Your task to perform on an android device: Go to eBay Image 0: 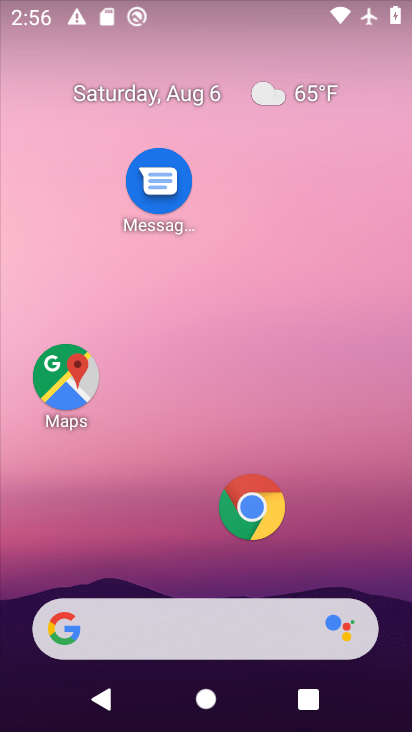
Step 0: click (247, 514)
Your task to perform on an android device: Go to eBay Image 1: 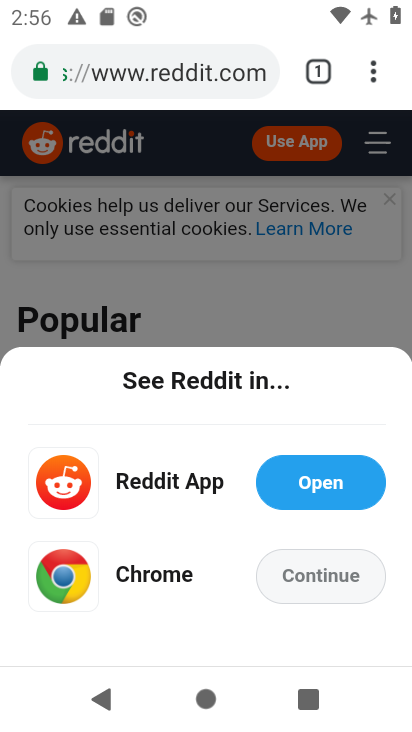
Step 1: click (316, 579)
Your task to perform on an android device: Go to eBay Image 2: 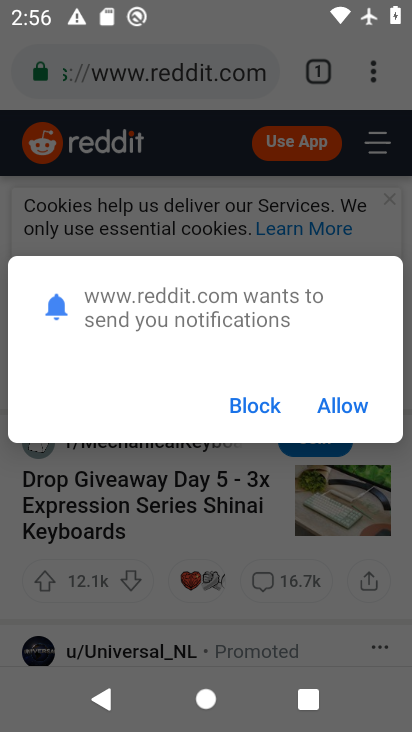
Step 2: click (339, 413)
Your task to perform on an android device: Go to eBay Image 3: 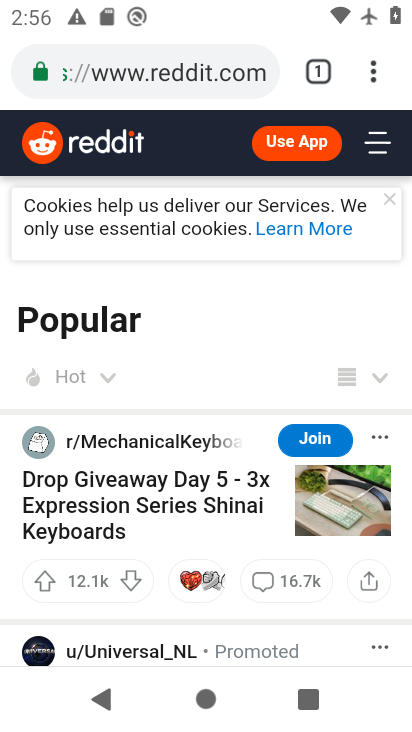
Step 3: click (134, 66)
Your task to perform on an android device: Go to eBay Image 4: 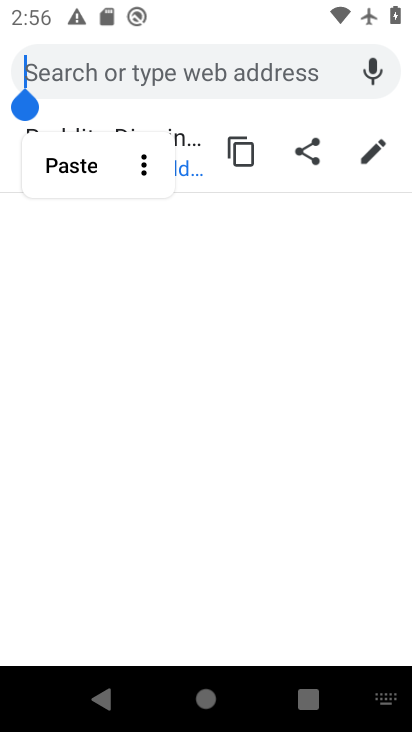
Step 4: type "eBay"
Your task to perform on an android device: Go to eBay Image 5: 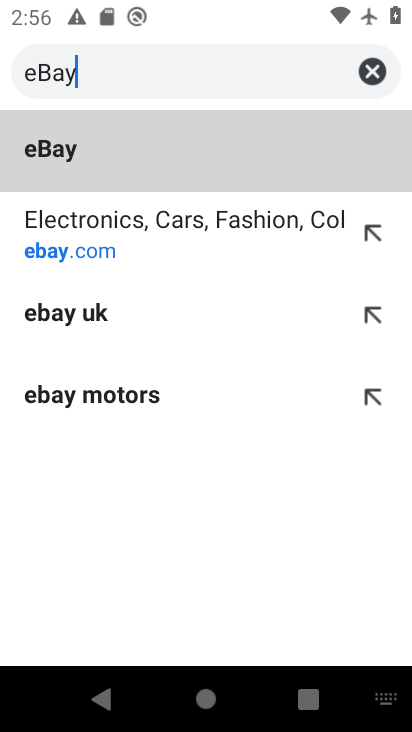
Step 5: click (74, 244)
Your task to perform on an android device: Go to eBay Image 6: 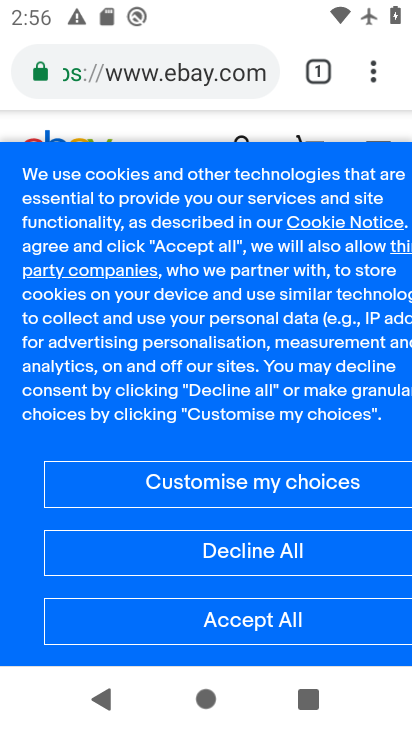
Step 6: task complete